Your task to perform on an android device: What's the weather? Image 0: 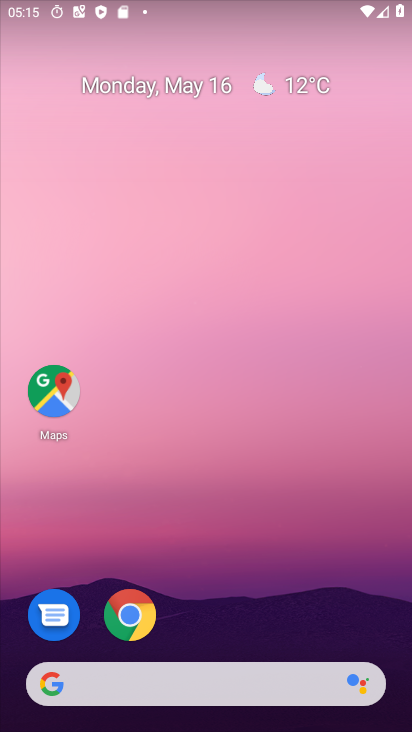
Step 0: drag from (404, 621) to (48, 85)
Your task to perform on an android device: What's the weather? Image 1: 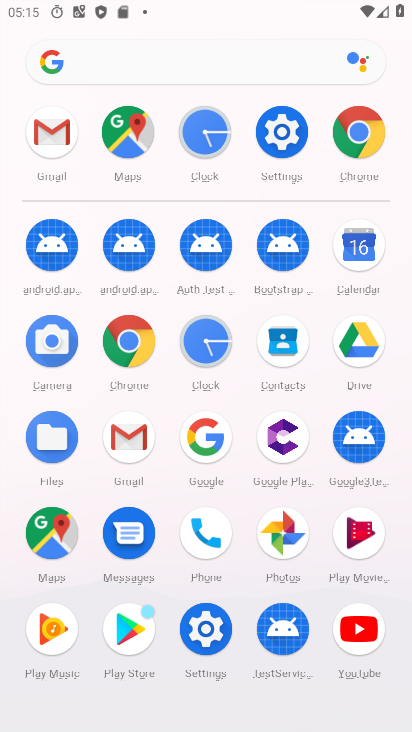
Step 1: press back button
Your task to perform on an android device: What's the weather? Image 2: 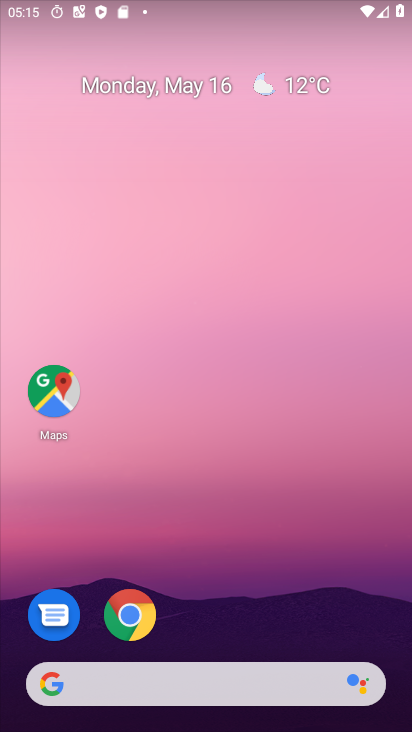
Step 2: drag from (1, 176) to (407, 444)
Your task to perform on an android device: What's the weather? Image 3: 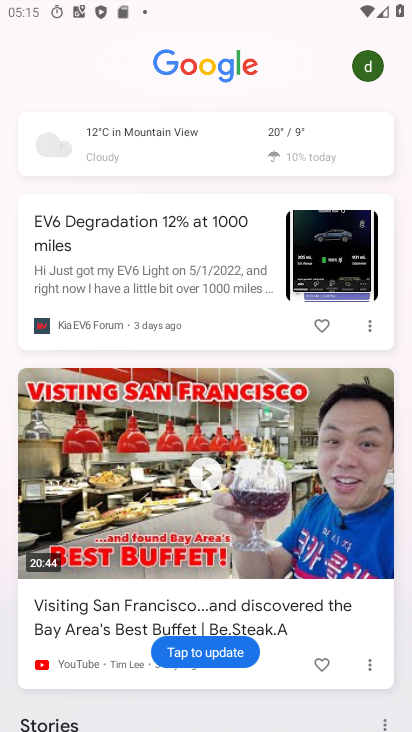
Step 3: click (169, 142)
Your task to perform on an android device: What's the weather? Image 4: 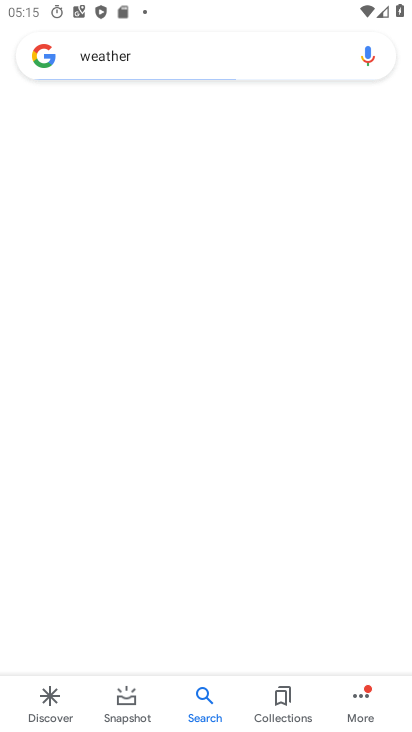
Step 4: click (173, 159)
Your task to perform on an android device: What's the weather? Image 5: 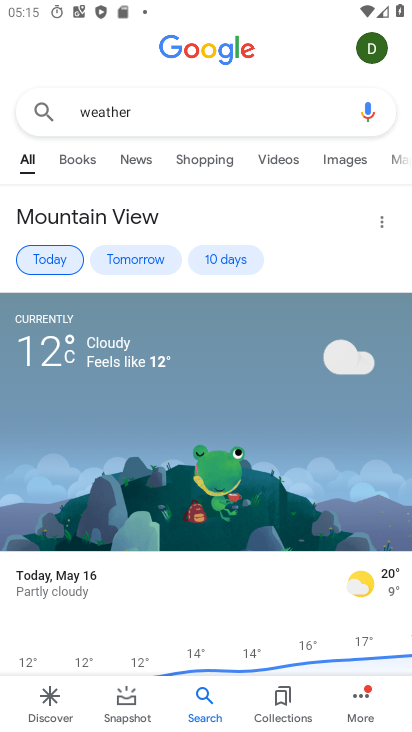
Step 5: click (122, 259)
Your task to perform on an android device: What's the weather? Image 6: 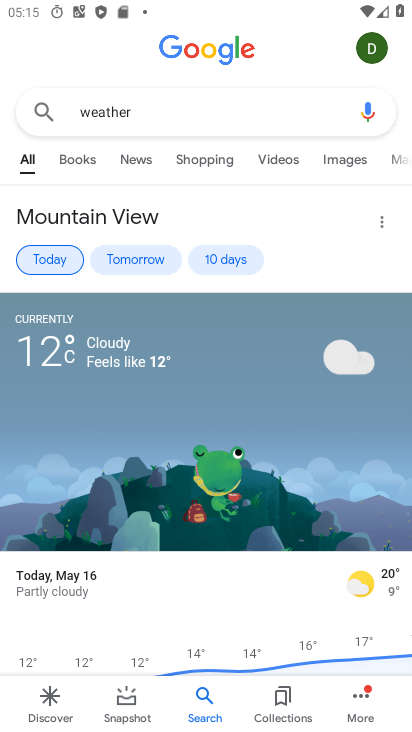
Step 6: click (123, 258)
Your task to perform on an android device: What's the weather? Image 7: 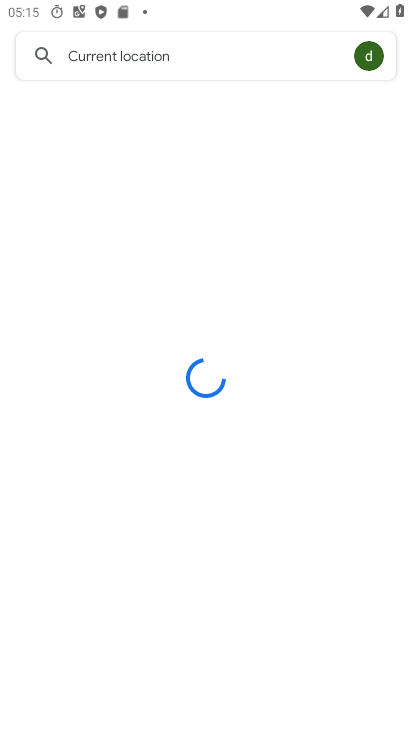
Step 7: click (122, 256)
Your task to perform on an android device: What's the weather? Image 8: 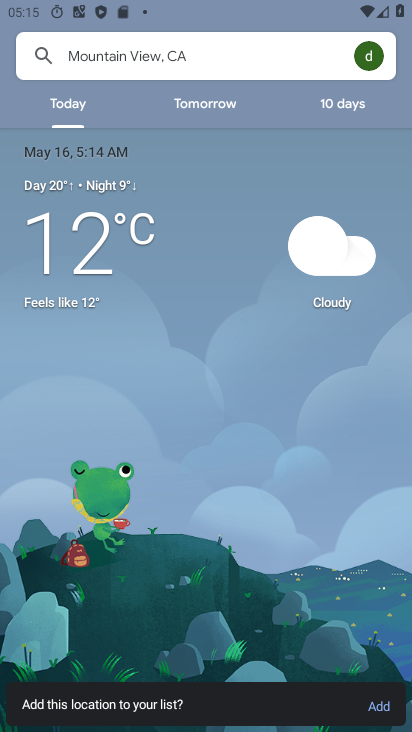
Step 8: task complete